Your task to perform on an android device: open app "Mercado Libre" (install if not already installed) Image 0: 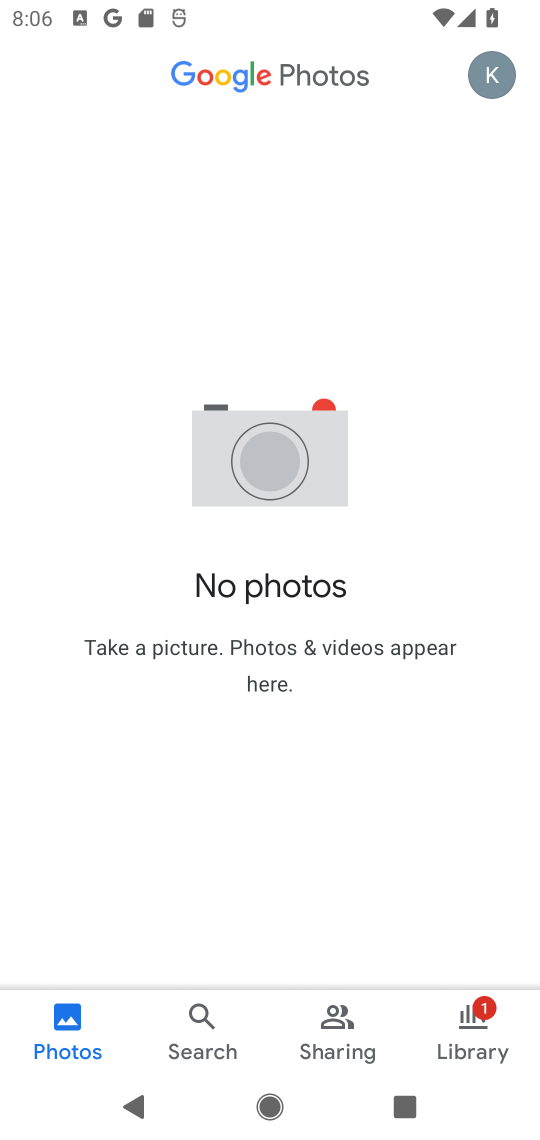
Step 0: press home button
Your task to perform on an android device: open app "Mercado Libre" (install if not already installed) Image 1: 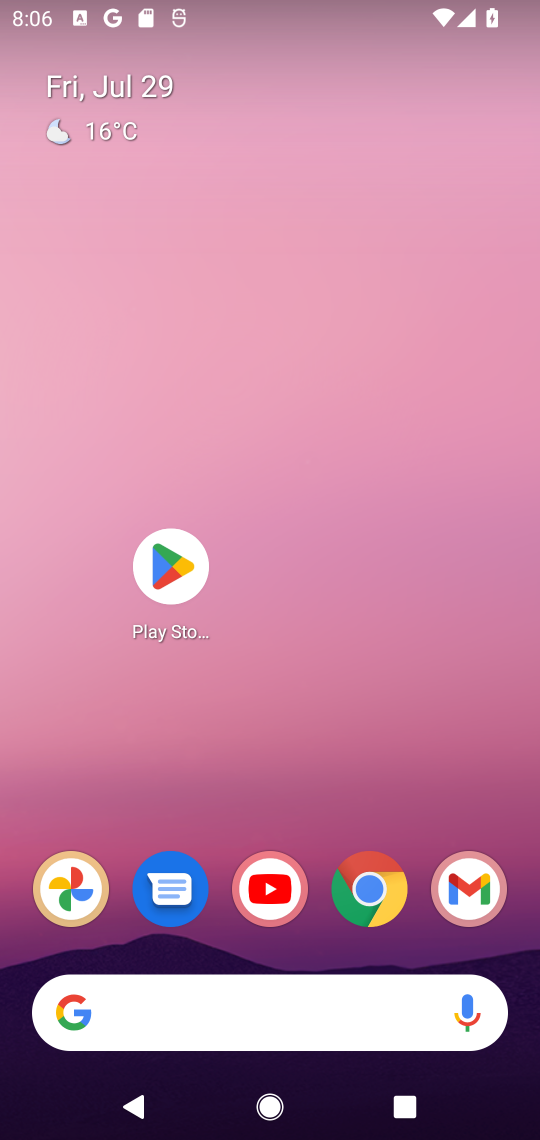
Step 1: click (163, 569)
Your task to perform on an android device: open app "Mercado Libre" (install if not already installed) Image 2: 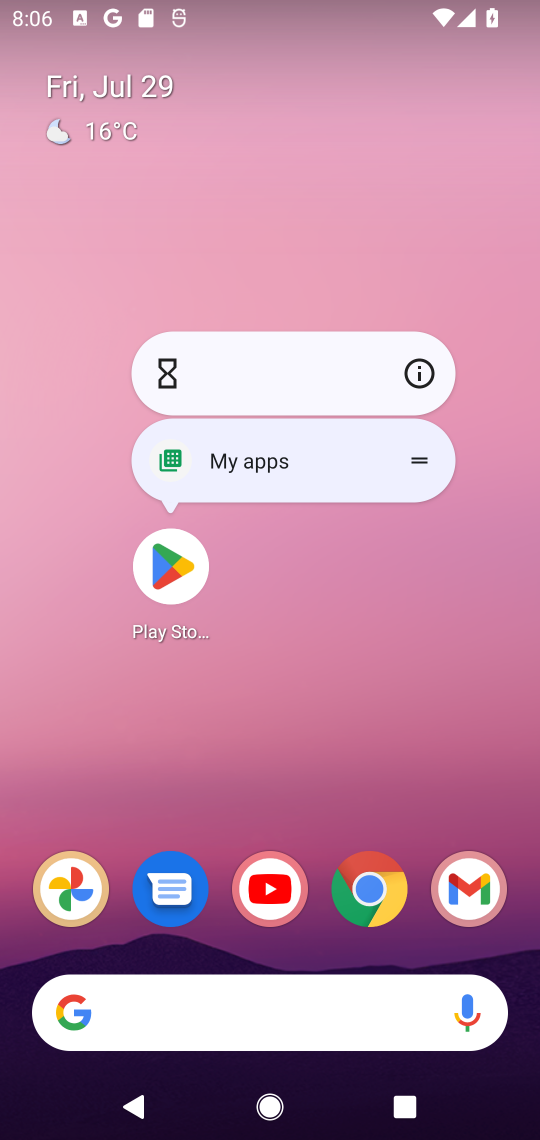
Step 2: click (167, 572)
Your task to perform on an android device: open app "Mercado Libre" (install if not already installed) Image 3: 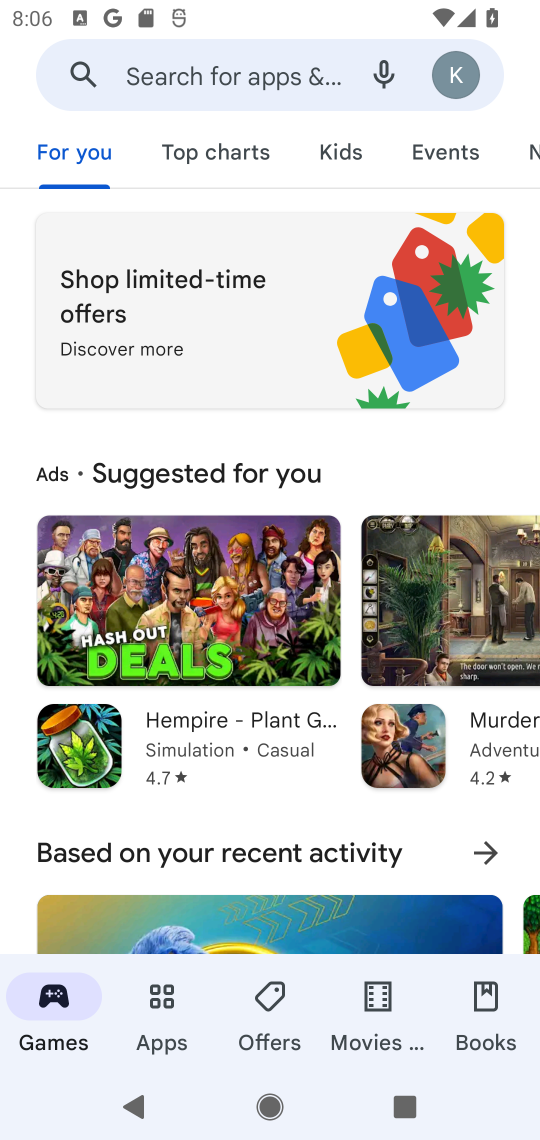
Step 3: click (178, 72)
Your task to perform on an android device: open app "Mercado Libre" (install if not already installed) Image 4: 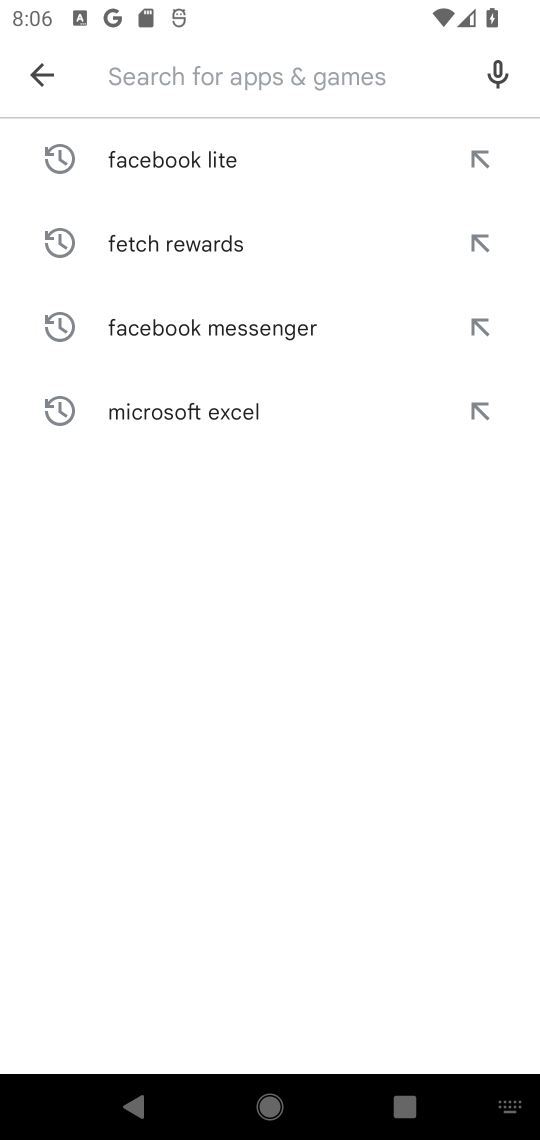
Step 4: type "Mercado Libre"
Your task to perform on an android device: open app "Mercado Libre" (install if not already installed) Image 5: 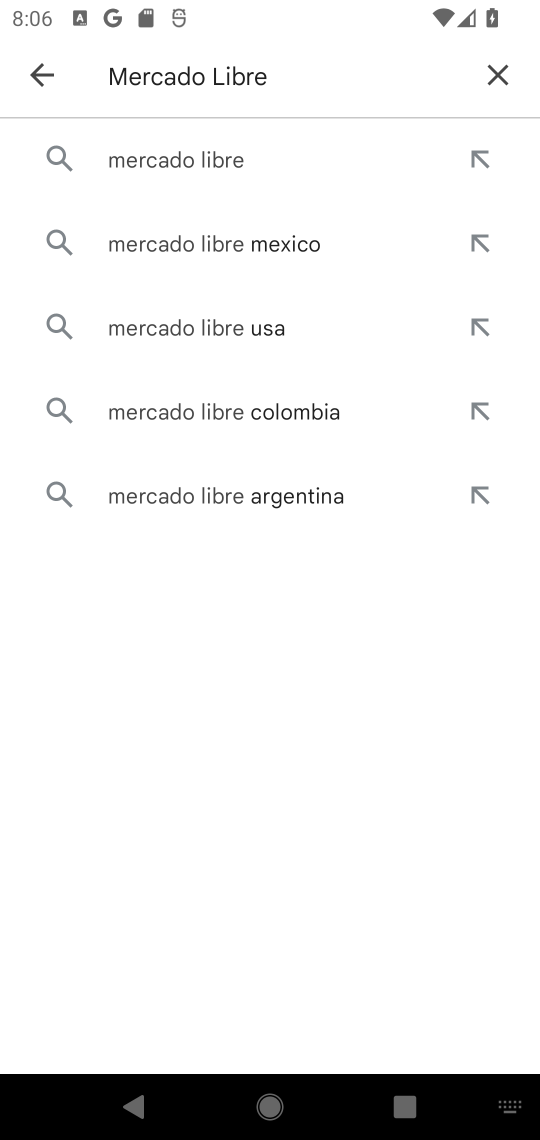
Step 5: click (207, 156)
Your task to perform on an android device: open app "Mercado Libre" (install if not already installed) Image 6: 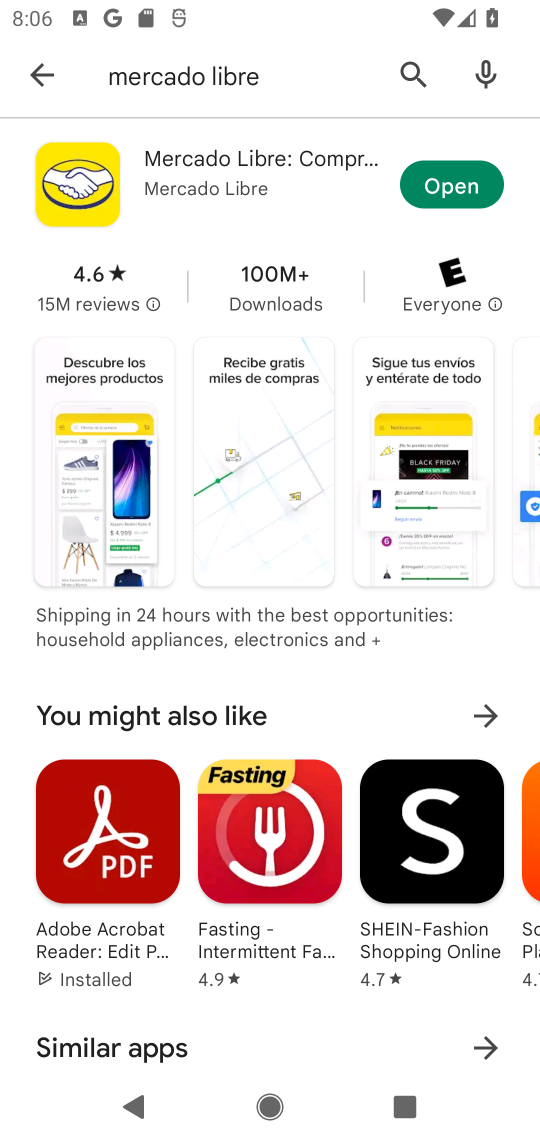
Step 6: click (444, 190)
Your task to perform on an android device: open app "Mercado Libre" (install if not already installed) Image 7: 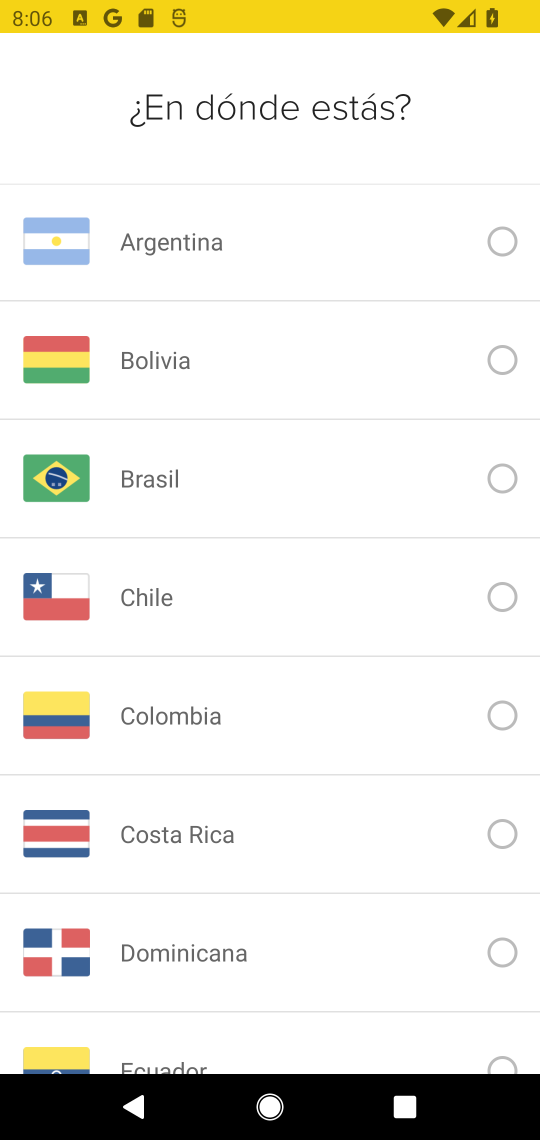
Step 7: task complete